Your task to perform on an android device: all mails in gmail Image 0: 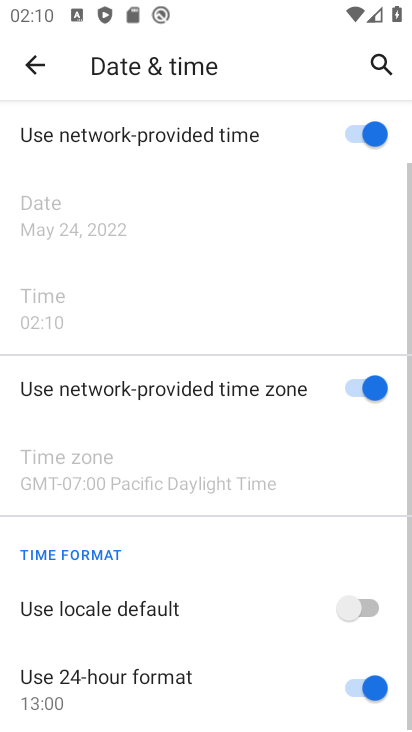
Step 0: press home button
Your task to perform on an android device: all mails in gmail Image 1: 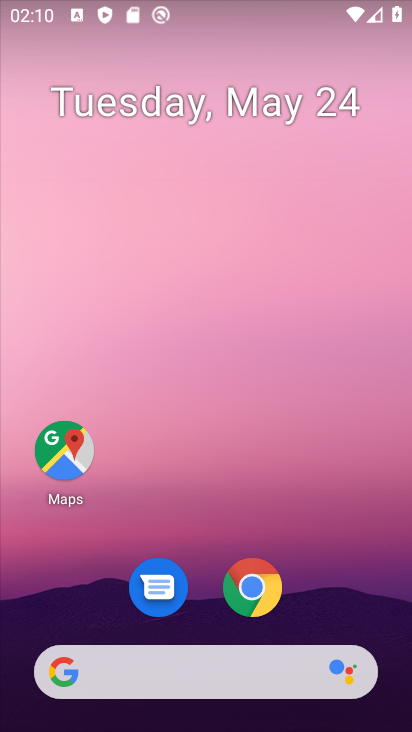
Step 1: drag from (207, 634) to (191, 32)
Your task to perform on an android device: all mails in gmail Image 2: 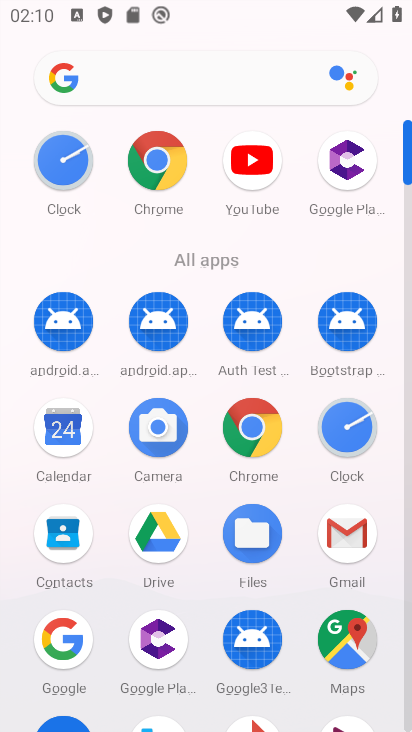
Step 2: click (354, 539)
Your task to perform on an android device: all mails in gmail Image 3: 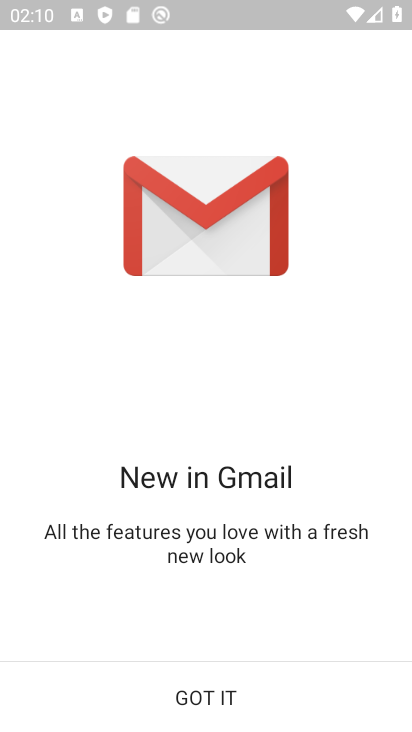
Step 3: click (245, 693)
Your task to perform on an android device: all mails in gmail Image 4: 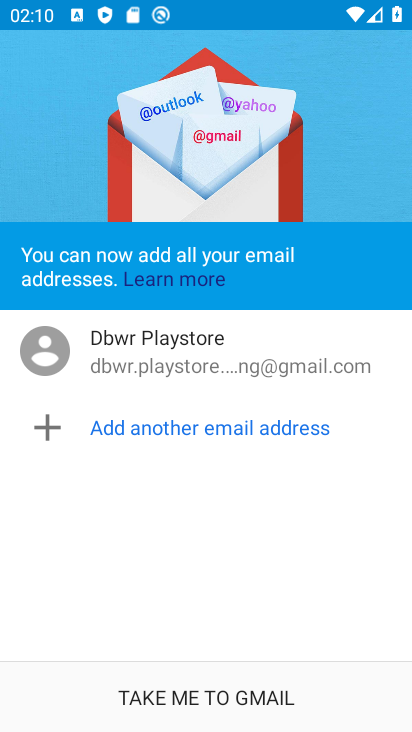
Step 4: click (245, 693)
Your task to perform on an android device: all mails in gmail Image 5: 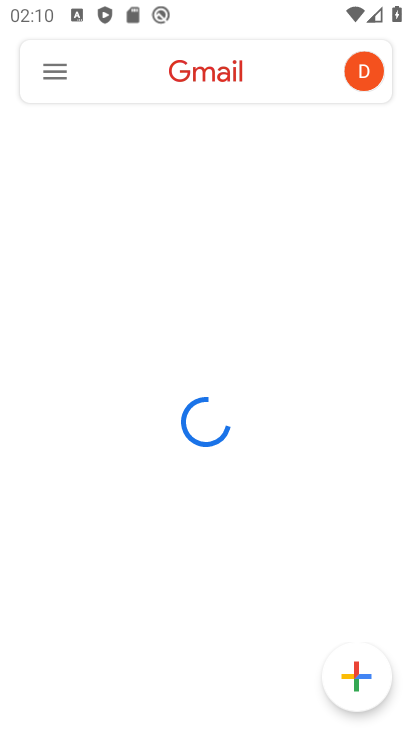
Step 5: click (46, 83)
Your task to perform on an android device: all mails in gmail Image 6: 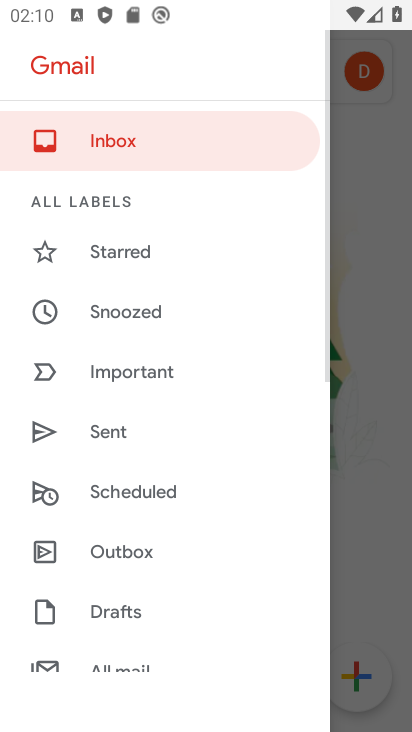
Step 6: drag from (172, 612) to (221, 255)
Your task to perform on an android device: all mails in gmail Image 7: 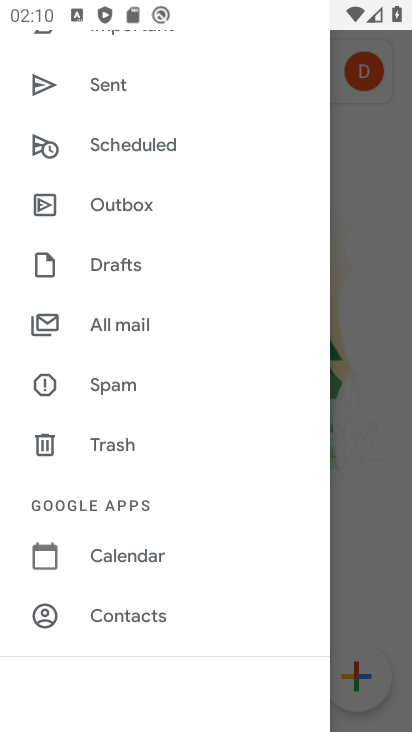
Step 7: click (118, 337)
Your task to perform on an android device: all mails in gmail Image 8: 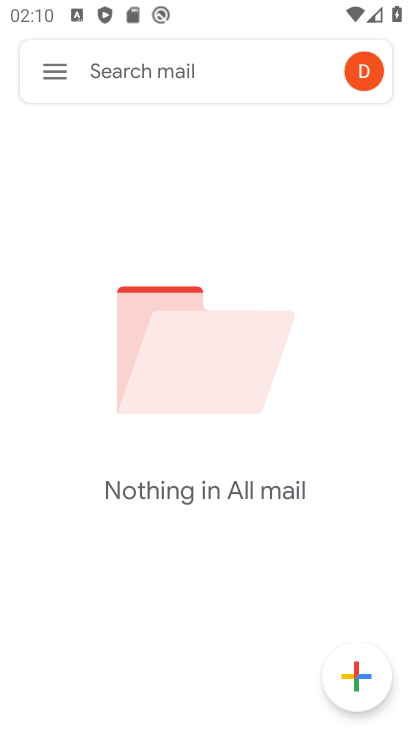
Step 8: task complete